Your task to perform on an android device: Open calendar and show me the first week of next month Image 0: 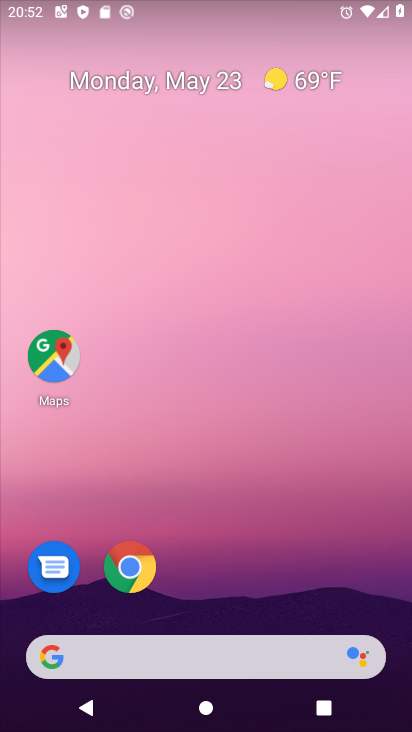
Step 0: drag from (211, 591) to (277, 6)
Your task to perform on an android device: Open calendar and show me the first week of next month Image 1: 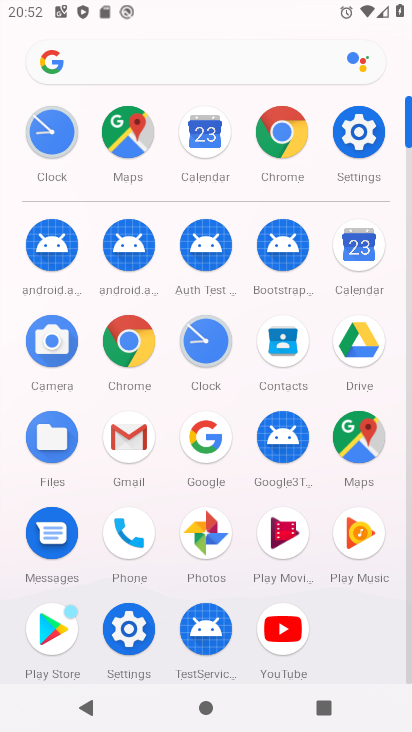
Step 1: click (353, 236)
Your task to perform on an android device: Open calendar and show me the first week of next month Image 2: 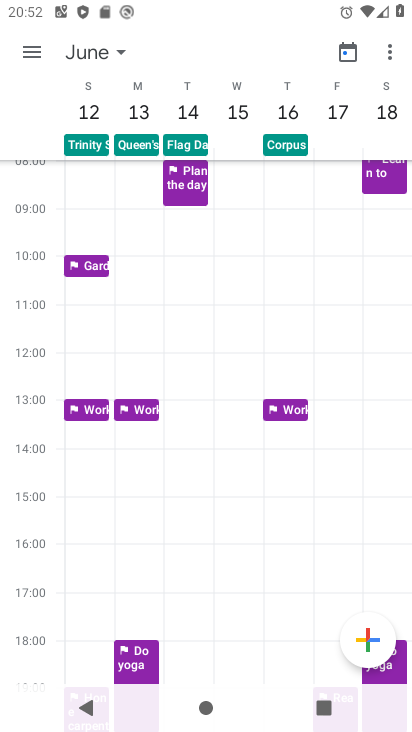
Step 2: task complete